Your task to perform on an android device: Open the map Image 0: 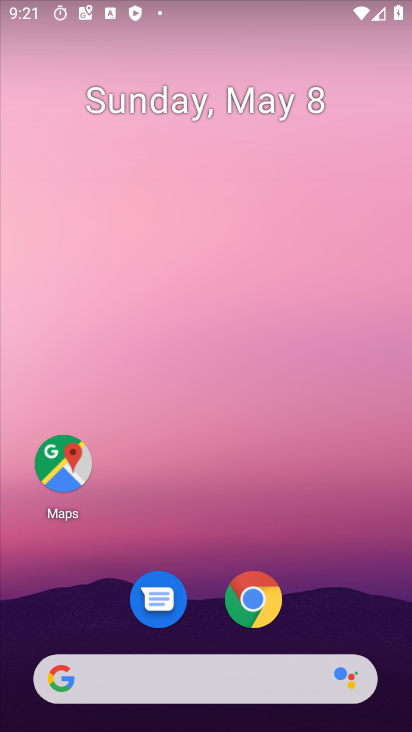
Step 0: drag from (246, 515) to (314, 68)
Your task to perform on an android device: Open the map Image 1: 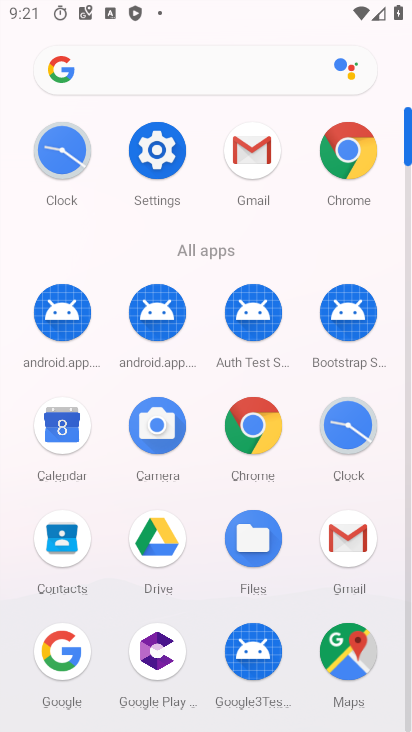
Step 1: drag from (151, 339) to (155, 57)
Your task to perform on an android device: Open the map Image 2: 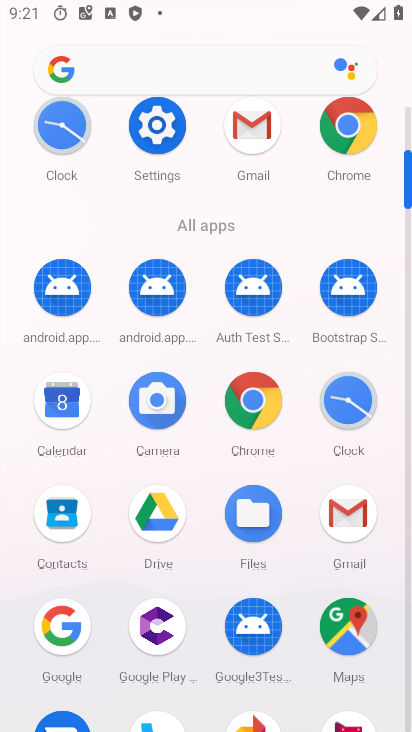
Step 2: click (343, 644)
Your task to perform on an android device: Open the map Image 3: 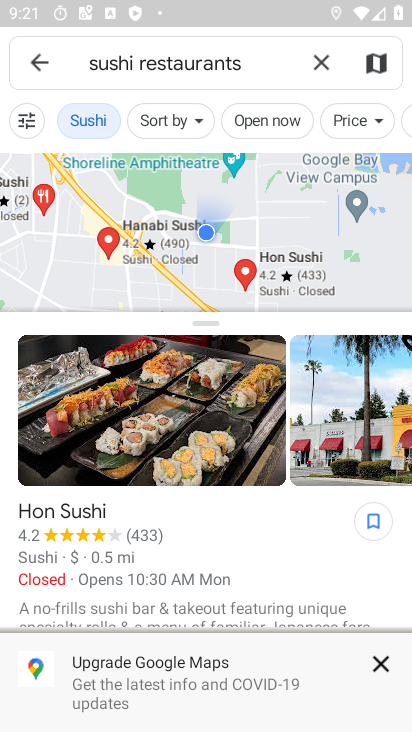
Step 3: task complete